Your task to perform on an android device: Search for sushi restaurants on Maps Image 0: 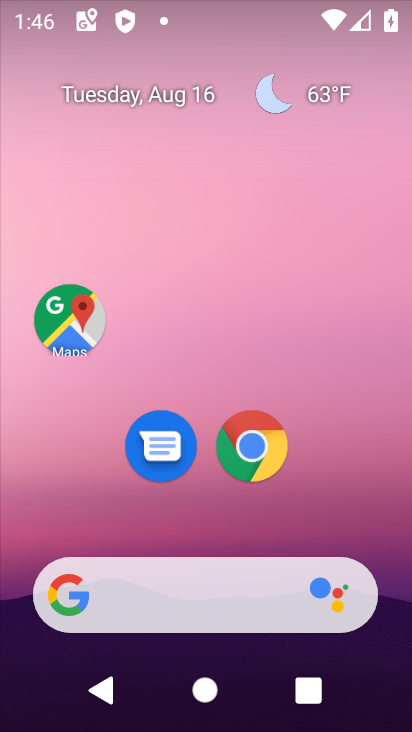
Step 0: press home button
Your task to perform on an android device: Search for sushi restaurants on Maps Image 1: 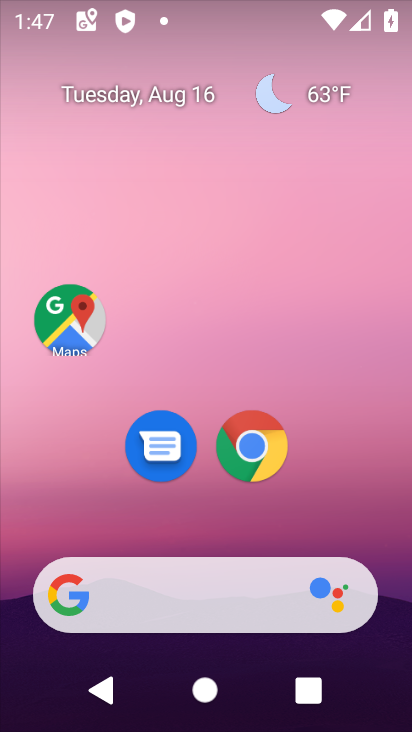
Step 1: drag from (196, 514) to (244, 3)
Your task to perform on an android device: Search for sushi restaurants on Maps Image 2: 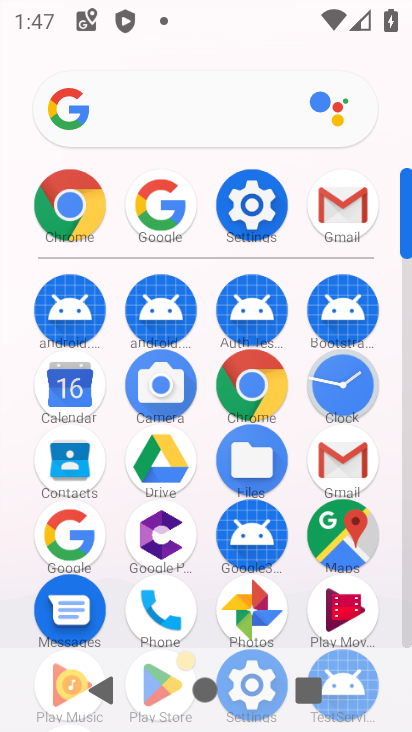
Step 2: click (341, 529)
Your task to perform on an android device: Search for sushi restaurants on Maps Image 3: 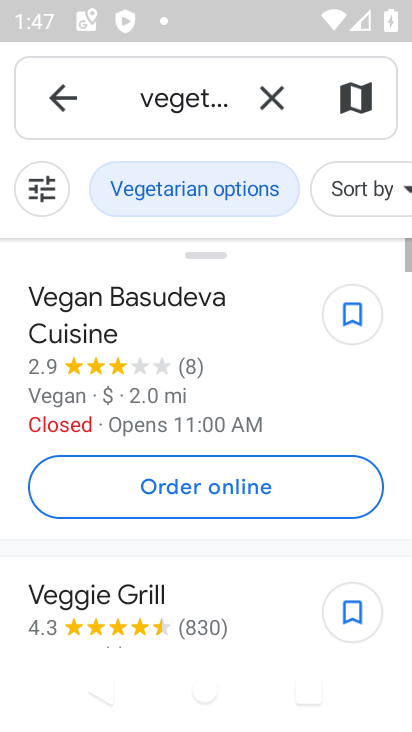
Step 3: click (267, 100)
Your task to perform on an android device: Search for sushi restaurants on Maps Image 4: 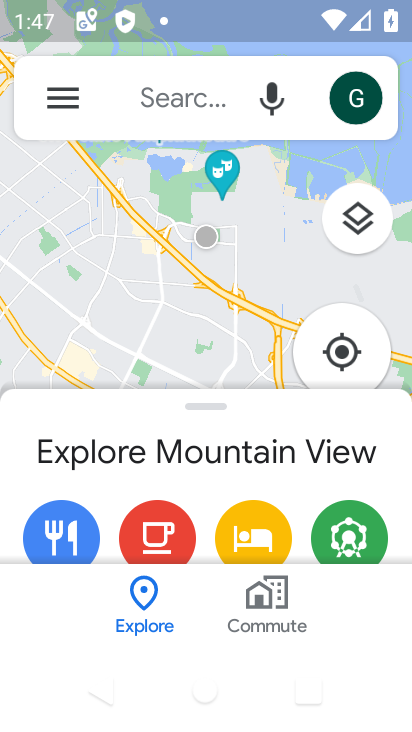
Step 4: click (150, 91)
Your task to perform on an android device: Search for sushi restaurants on Maps Image 5: 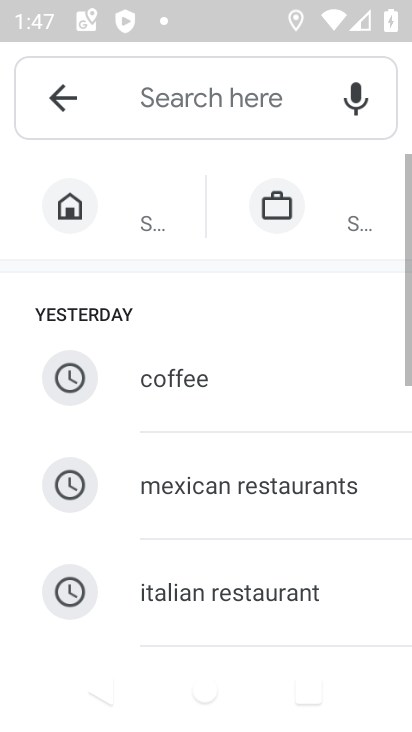
Step 5: click (162, 97)
Your task to perform on an android device: Search for sushi restaurants on Maps Image 6: 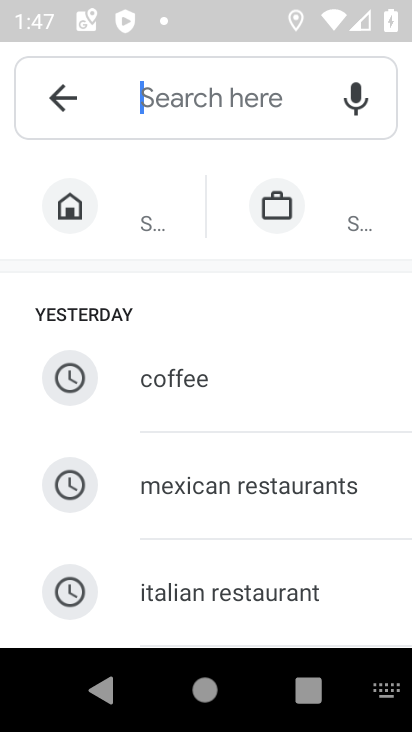
Step 6: drag from (111, 554) to (146, 212)
Your task to perform on an android device: Search for sushi restaurants on Maps Image 7: 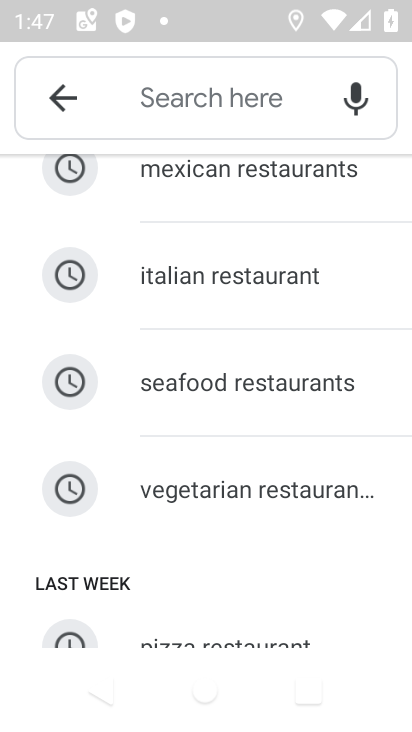
Step 7: drag from (118, 542) to (157, 215)
Your task to perform on an android device: Search for sushi restaurants on Maps Image 8: 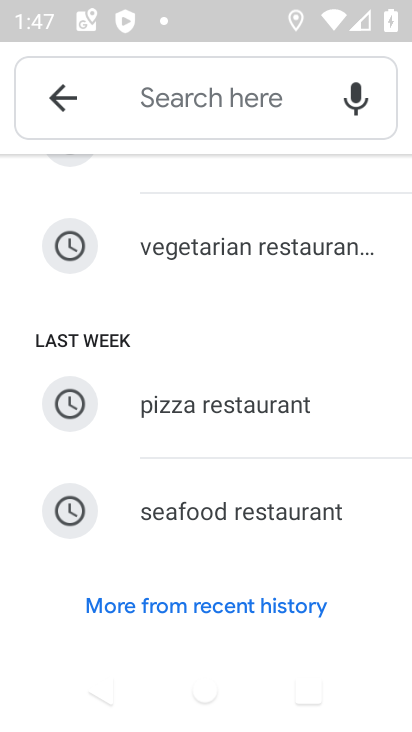
Step 8: click (175, 93)
Your task to perform on an android device: Search for sushi restaurants on Maps Image 9: 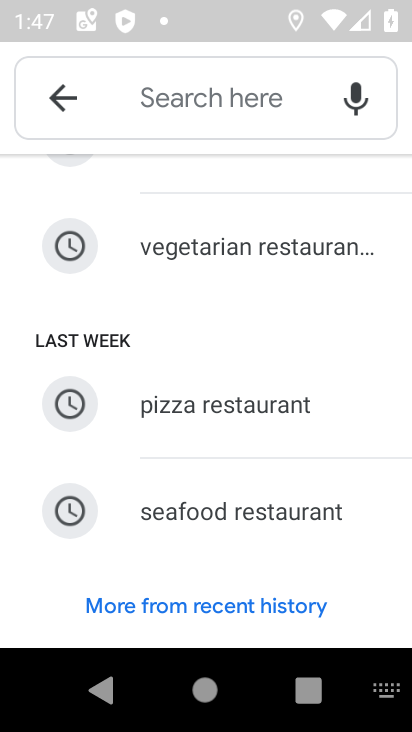
Step 9: type "sushi"
Your task to perform on an android device: Search for sushi restaurants on Maps Image 10: 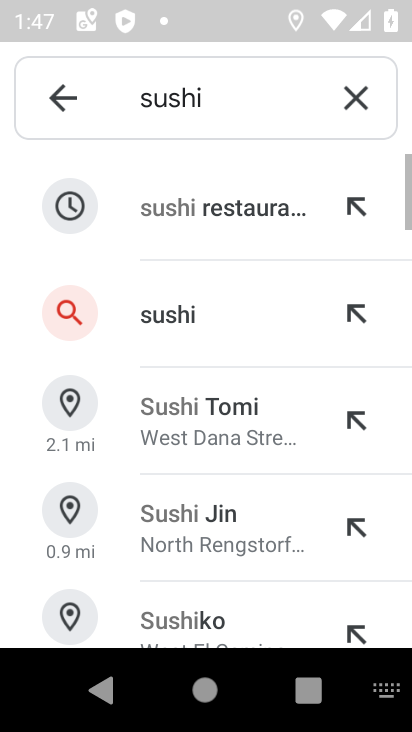
Step 10: click (185, 214)
Your task to perform on an android device: Search for sushi restaurants on Maps Image 11: 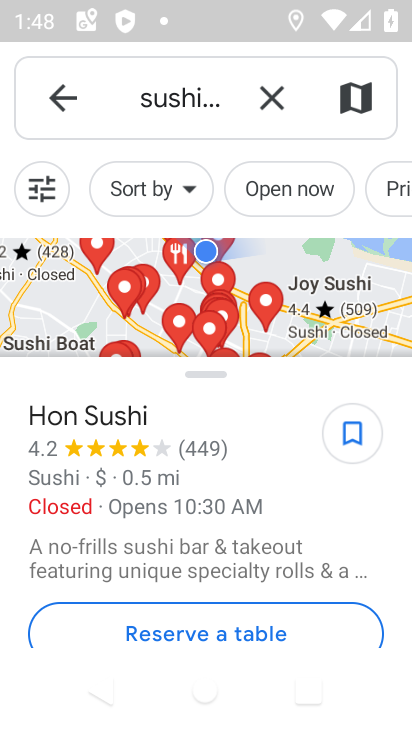
Step 11: task complete